Your task to perform on an android device: change your default location settings in chrome Image 0: 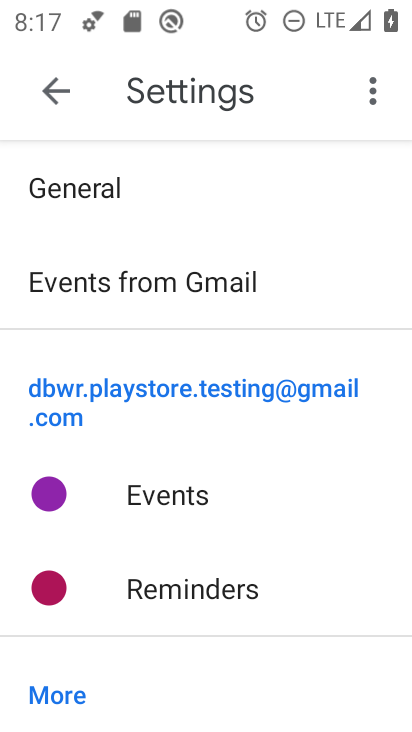
Step 0: press home button
Your task to perform on an android device: change your default location settings in chrome Image 1: 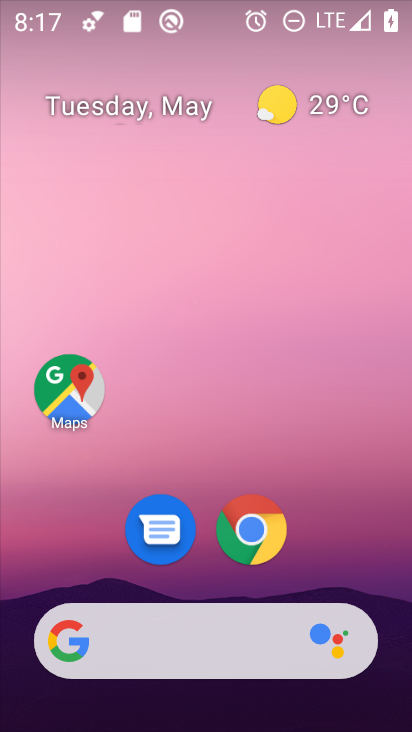
Step 1: drag from (391, 628) to (305, 135)
Your task to perform on an android device: change your default location settings in chrome Image 2: 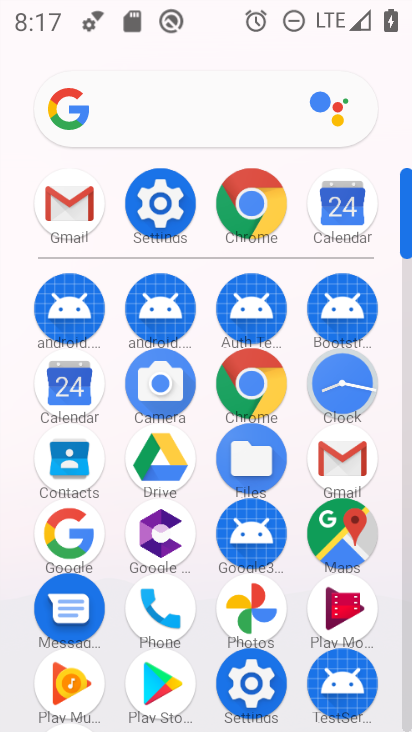
Step 2: click (257, 216)
Your task to perform on an android device: change your default location settings in chrome Image 3: 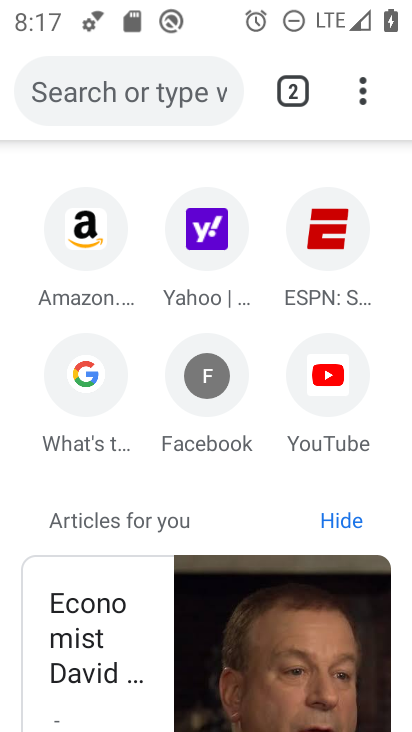
Step 3: click (368, 86)
Your task to perform on an android device: change your default location settings in chrome Image 4: 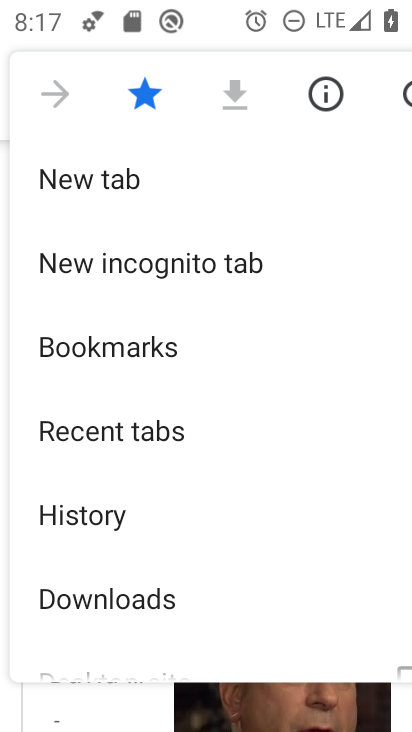
Step 4: drag from (122, 619) to (169, 313)
Your task to perform on an android device: change your default location settings in chrome Image 5: 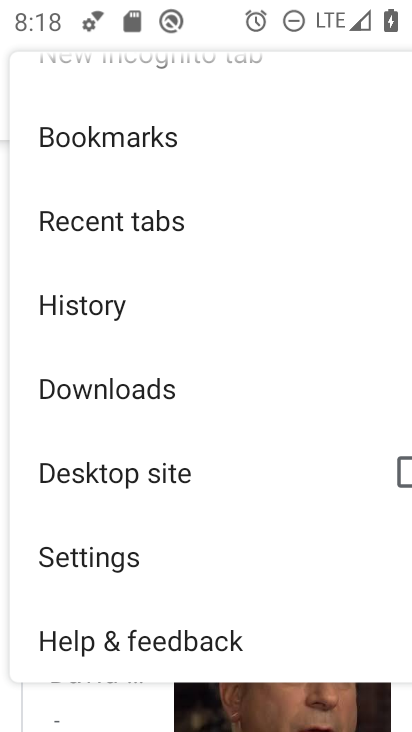
Step 5: click (131, 548)
Your task to perform on an android device: change your default location settings in chrome Image 6: 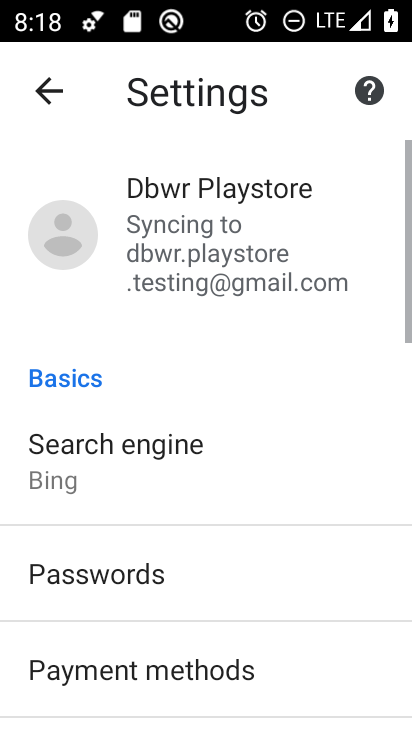
Step 6: click (161, 468)
Your task to perform on an android device: change your default location settings in chrome Image 7: 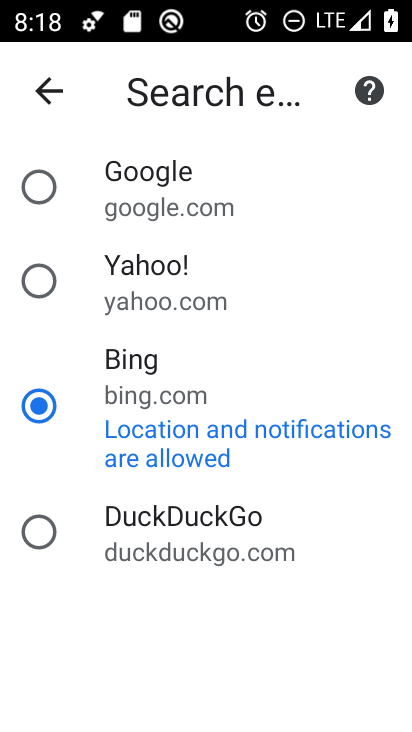
Step 7: click (46, 196)
Your task to perform on an android device: change your default location settings in chrome Image 8: 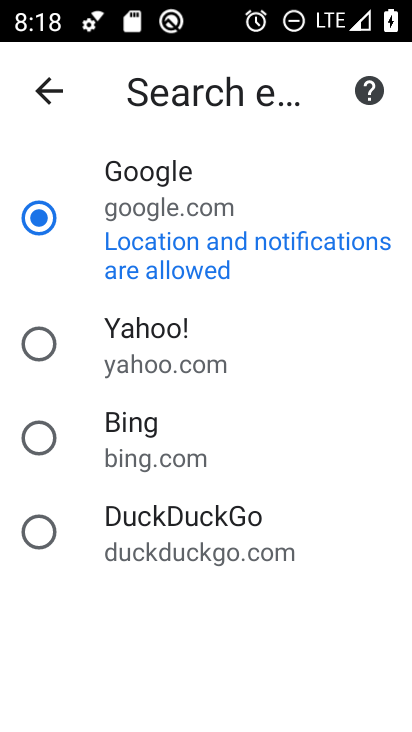
Step 8: task complete